Your task to perform on an android device: Find coffee shops on Maps Image 0: 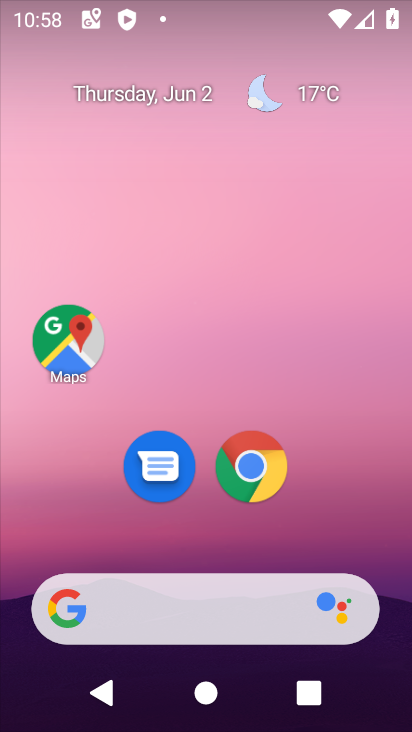
Step 0: click (64, 317)
Your task to perform on an android device: Find coffee shops on Maps Image 1: 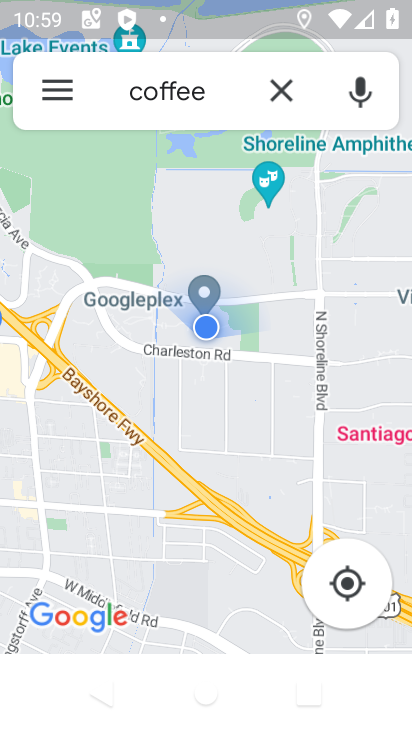
Step 1: task complete